Your task to perform on an android device: Go to Yahoo.com Image 0: 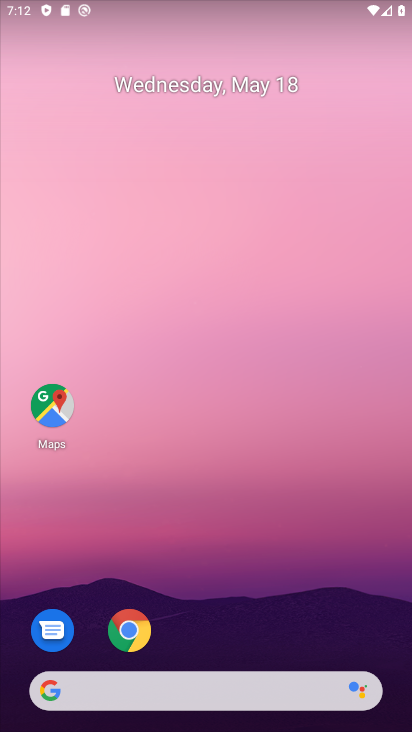
Step 0: click (128, 633)
Your task to perform on an android device: Go to Yahoo.com Image 1: 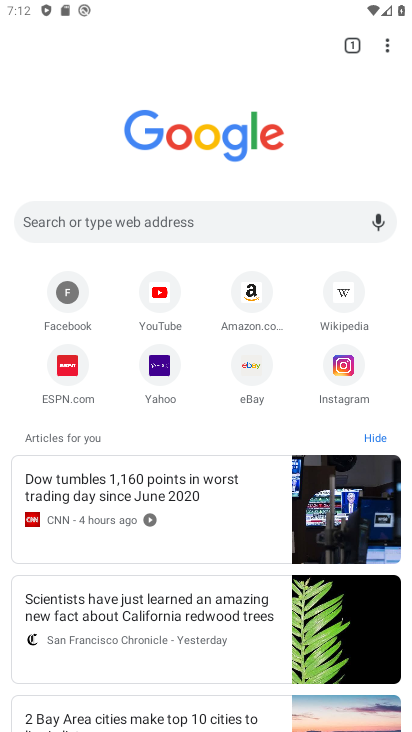
Step 1: click (164, 367)
Your task to perform on an android device: Go to Yahoo.com Image 2: 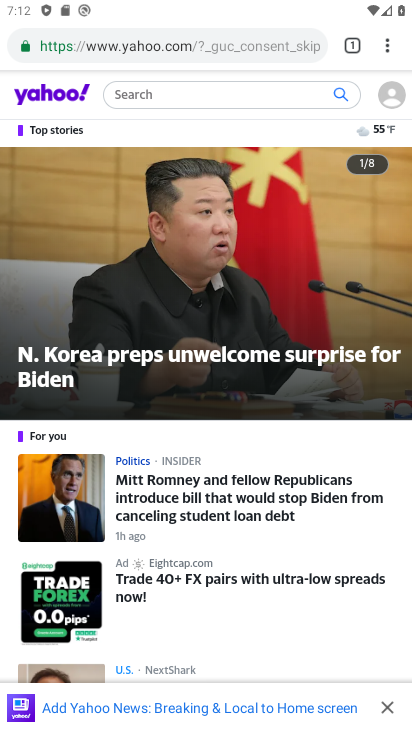
Step 2: task complete